Your task to perform on an android device: Search for seafood restaurants on Google Maps Image 0: 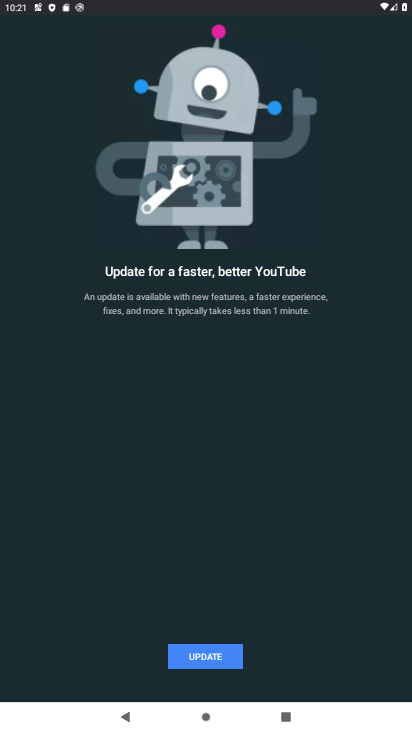
Step 0: press back button
Your task to perform on an android device: Search for seafood restaurants on Google Maps Image 1: 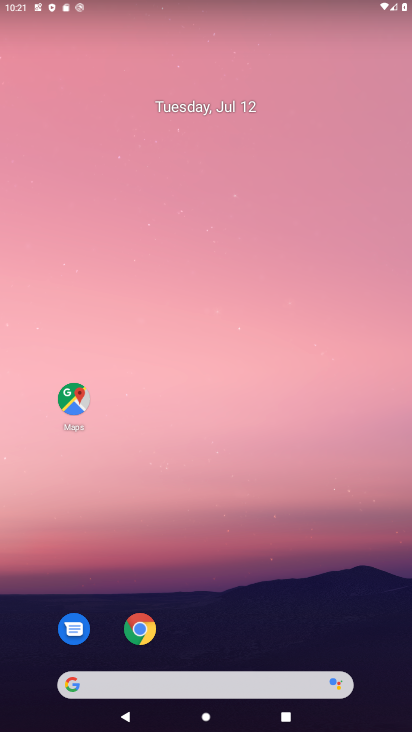
Step 1: click (86, 395)
Your task to perform on an android device: Search for seafood restaurants on Google Maps Image 2: 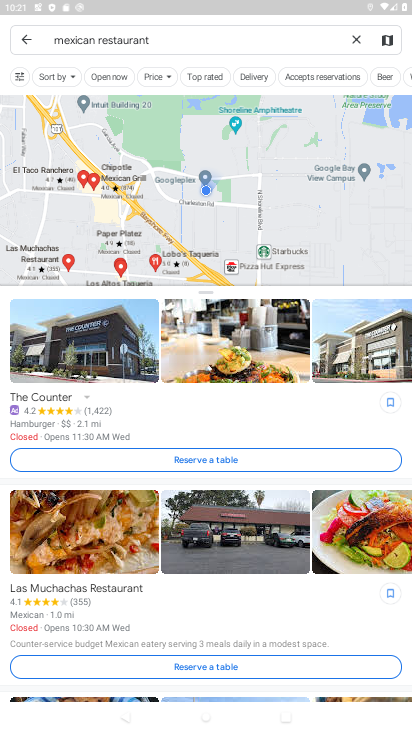
Step 2: click (354, 35)
Your task to perform on an android device: Search for seafood restaurants on Google Maps Image 3: 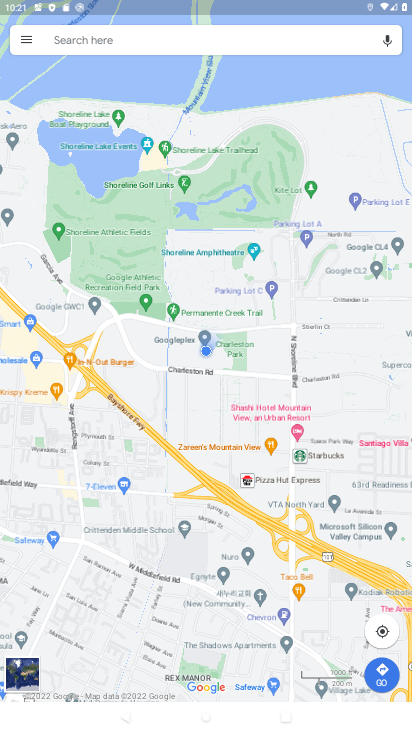
Step 3: click (197, 45)
Your task to perform on an android device: Search for seafood restaurants on Google Maps Image 4: 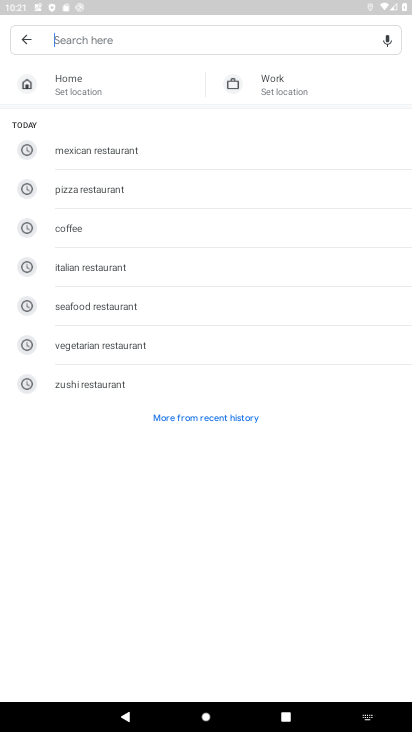
Step 4: click (170, 305)
Your task to perform on an android device: Search for seafood restaurants on Google Maps Image 5: 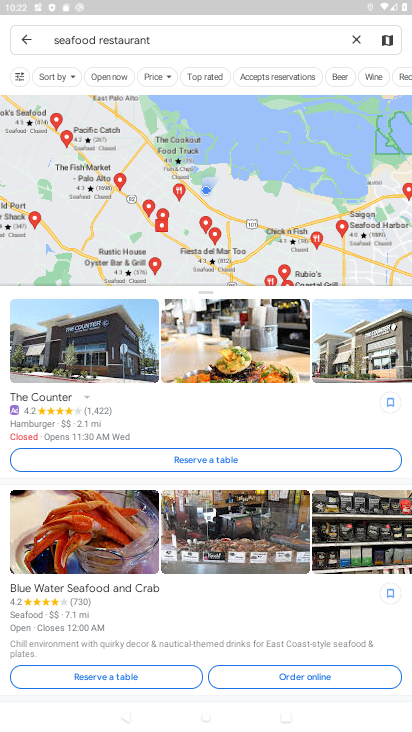
Step 5: task complete